Your task to perform on an android device: turn off sleep mode Image 0: 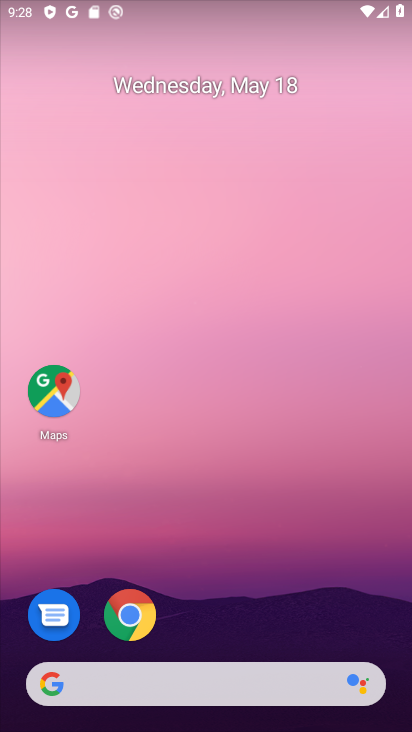
Step 0: drag from (289, 634) to (275, 56)
Your task to perform on an android device: turn off sleep mode Image 1: 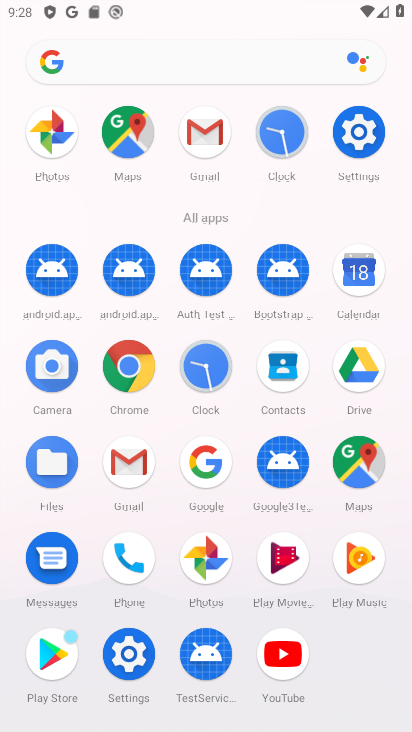
Step 1: click (379, 125)
Your task to perform on an android device: turn off sleep mode Image 2: 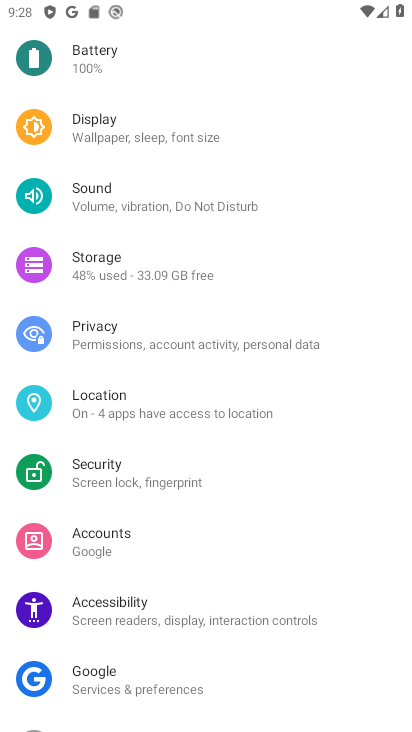
Step 2: drag from (305, 13) to (299, 612)
Your task to perform on an android device: turn off sleep mode Image 3: 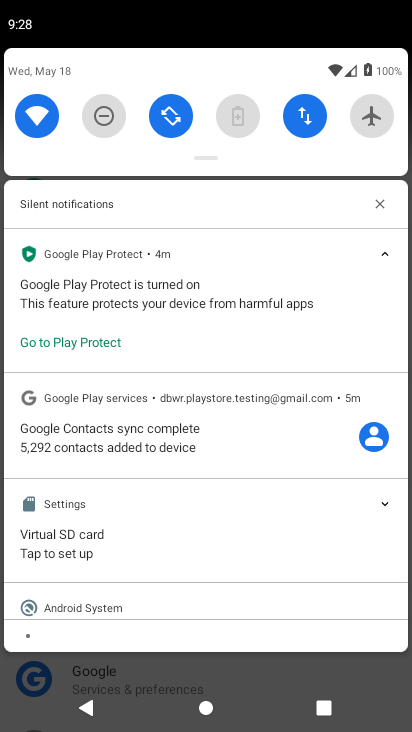
Step 3: drag from (231, 163) to (240, 599)
Your task to perform on an android device: turn off sleep mode Image 4: 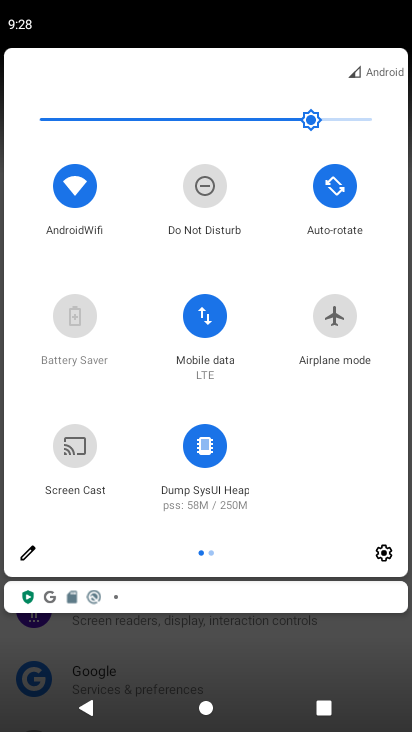
Step 4: click (23, 547)
Your task to perform on an android device: turn off sleep mode Image 5: 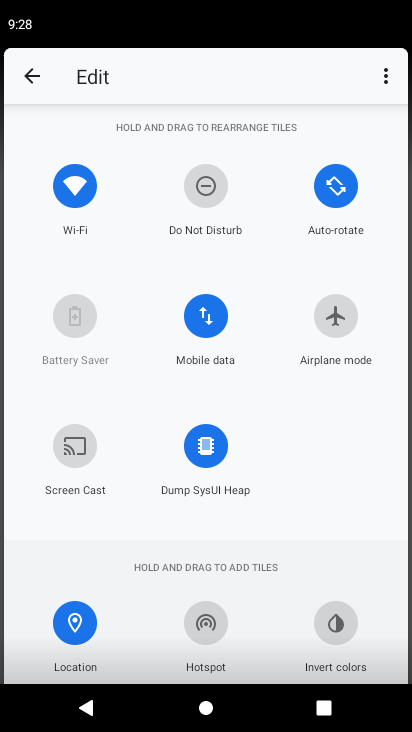
Step 5: task complete